Your task to perform on an android device: Open network settings Image 0: 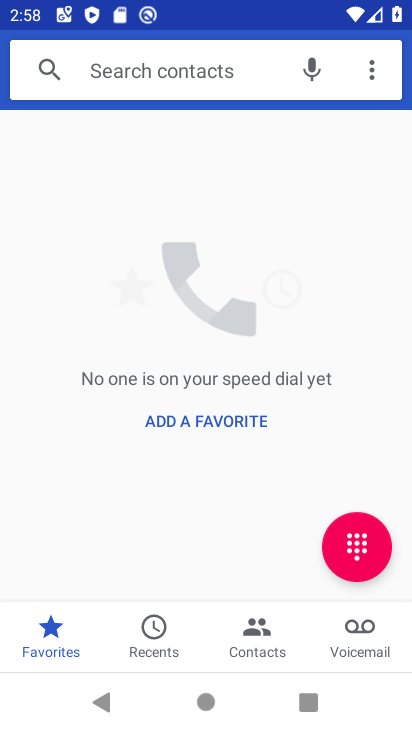
Step 0: press back button
Your task to perform on an android device: Open network settings Image 1: 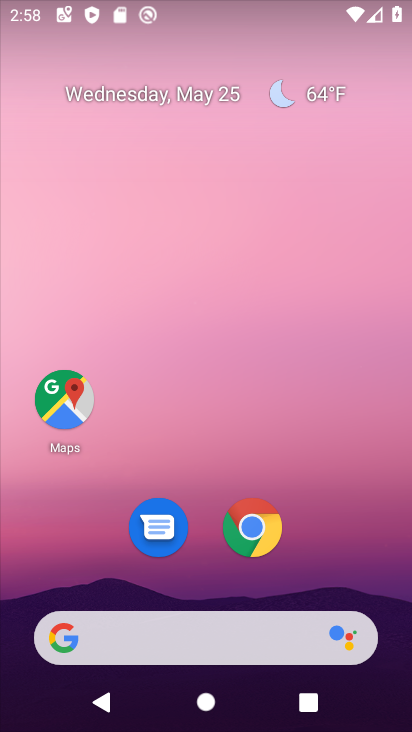
Step 1: drag from (197, 601) to (228, 49)
Your task to perform on an android device: Open network settings Image 2: 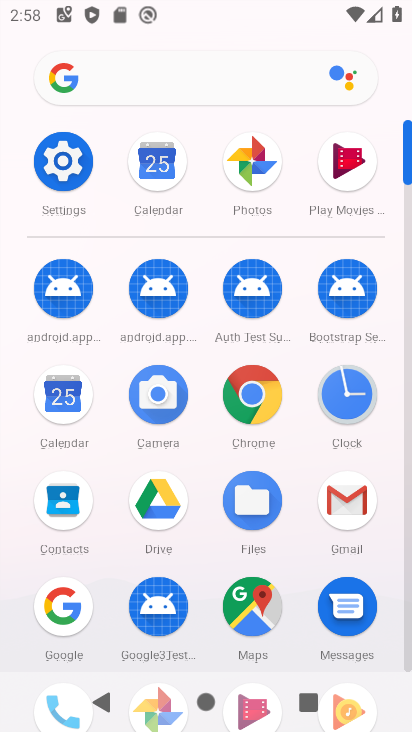
Step 2: click (54, 161)
Your task to perform on an android device: Open network settings Image 3: 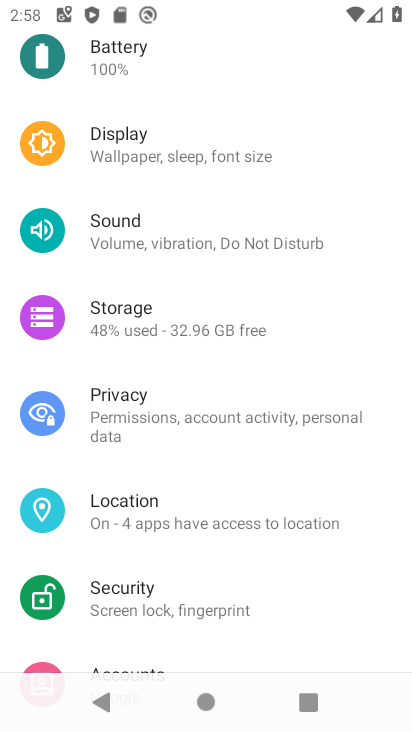
Step 3: drag from (205, 218) to (190, 710)
Your task to perform on an android device: Open network settings Image 4: 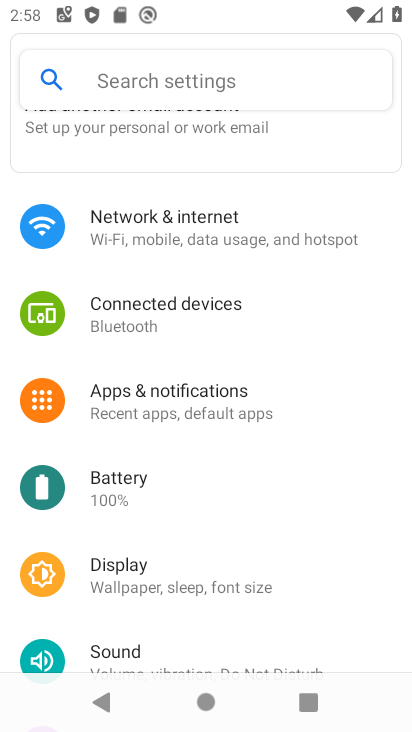
Step 4: click (172, 219)
Your task to perform on an android device: Open network settings Image 5: 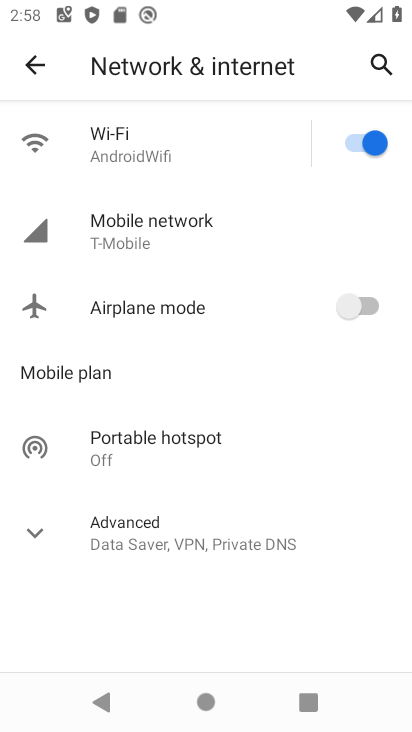
Step 5: task complete